Your task to perform on an android device: Go to privacy settings Image 0: 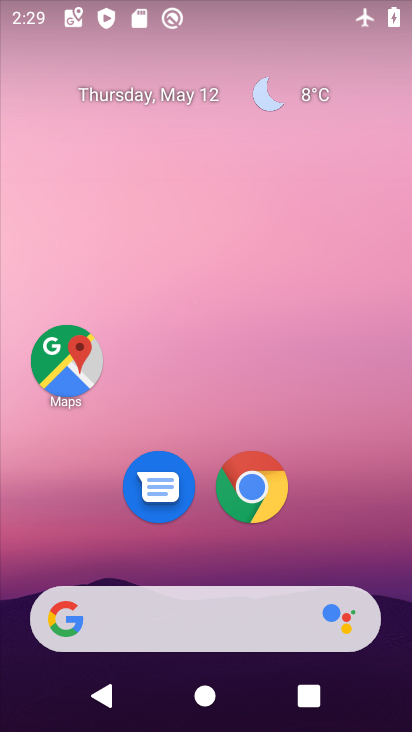
Step 0: drag from (345, 515) to (277, 134)
Your task to perform on an android device: Go to privacy settings Image 1: 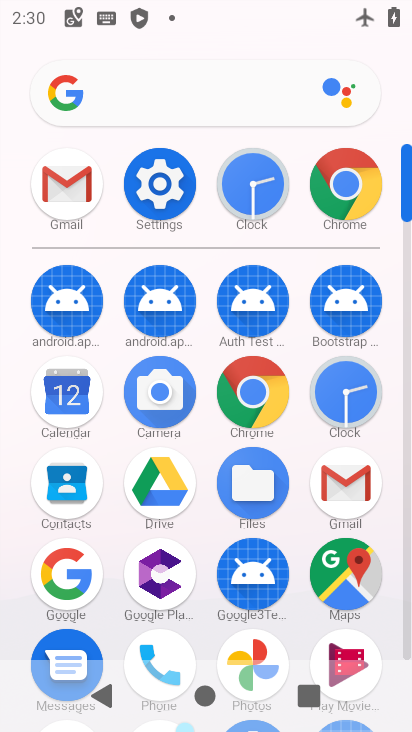
Step 1: click (167, 196)
Your task to perform on an android device: Go to privacy settings Image 2: 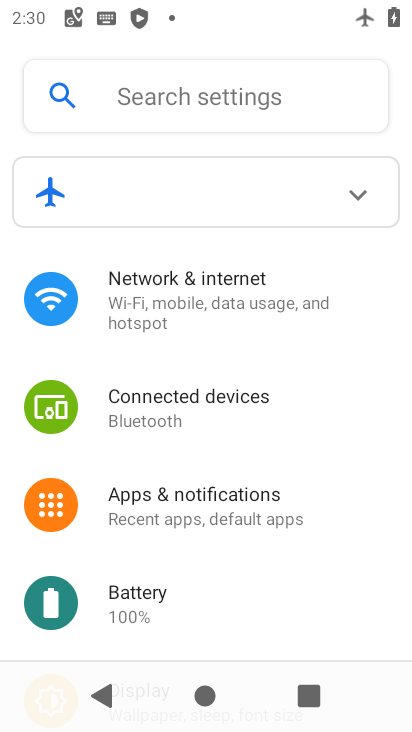
Step 2: drag from (278, 611) to (312, 167)
Your task to perform on an android device: Go to privacy settings Image 3: 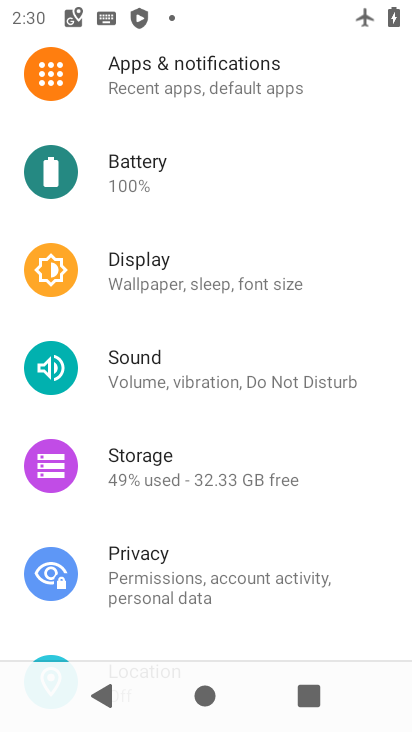
Step 3: drag from (249, 525) to (283, 313)
Your task to perform on an android device: Go to privacy settings Image 4: 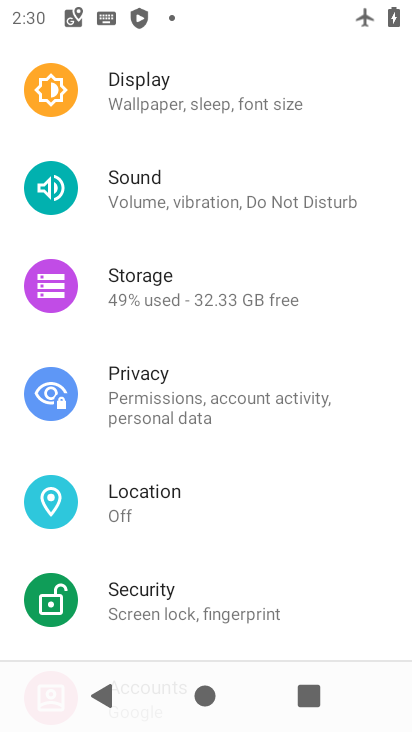
Step 4: click (228, 397)
Your task to perform on an android device: Go to privacy settings Image 5: 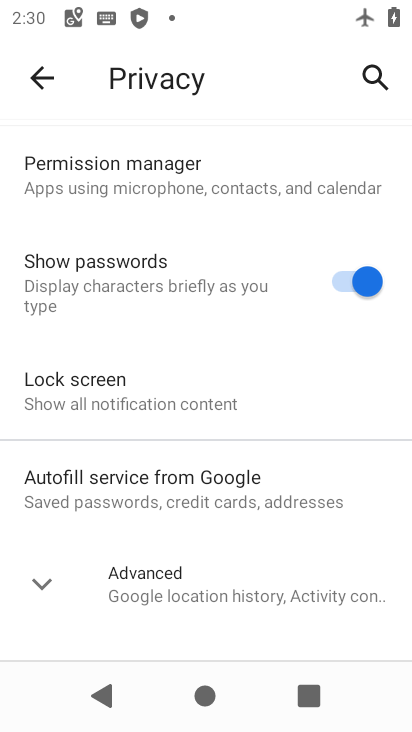
Step 5: task complete